Your task to perform on an android device: add a contact in the contacts app Image 0: 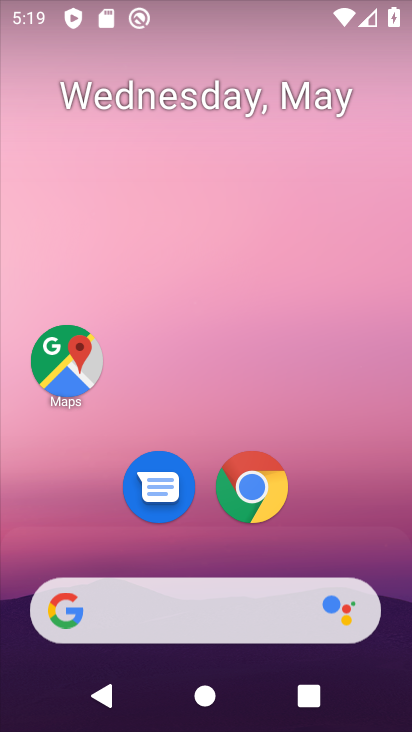
Step 0: drag from (218, 575) to (375, 25)
Your task to perform on an android device: add a contact in the contacts app Image 1: 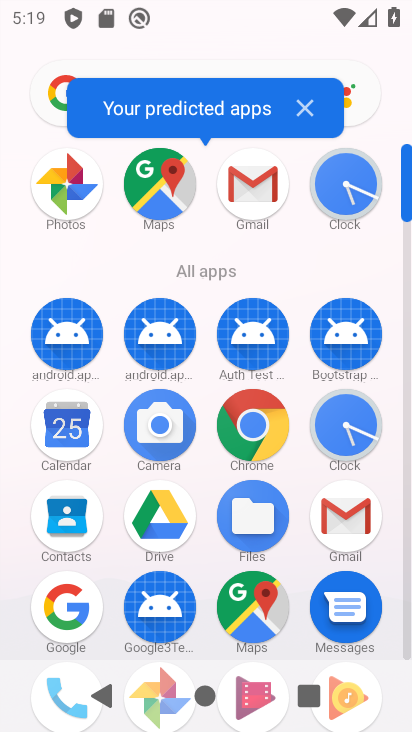
Step 1: drag from (292, 621) to (249, 239)
Your task to perform on an android device: add a contact in the contacts app Image 2: 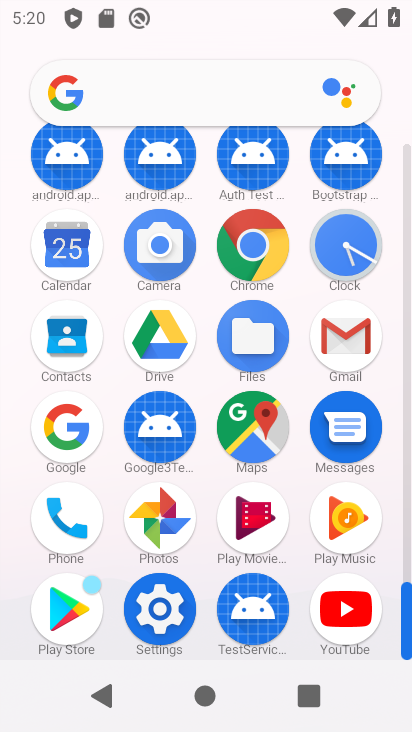
Step 2: click (75, 368)
Your task to perform on an android device: add a contact in the contacts app Image 3: 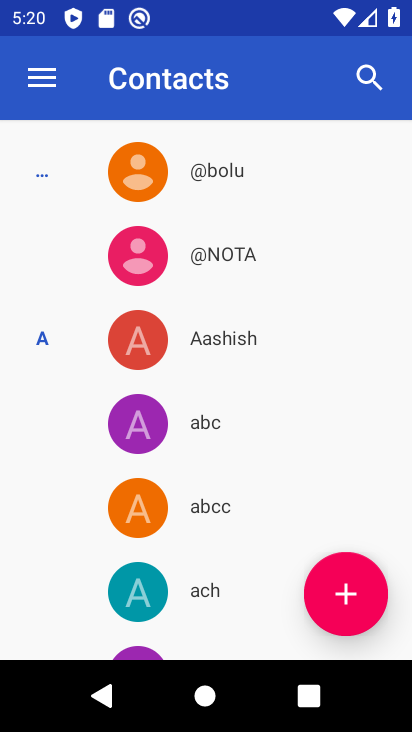
Step 3: click (334, 610)
Your task to perform on an android device: add a contact in the contacts app Image 4: 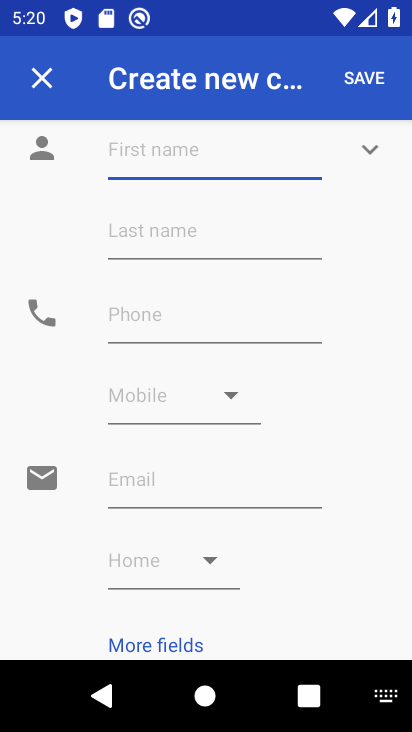
Step 4: type "Avacado"
Your task to perform on an android device: add a contact in the contacts app Image 5: 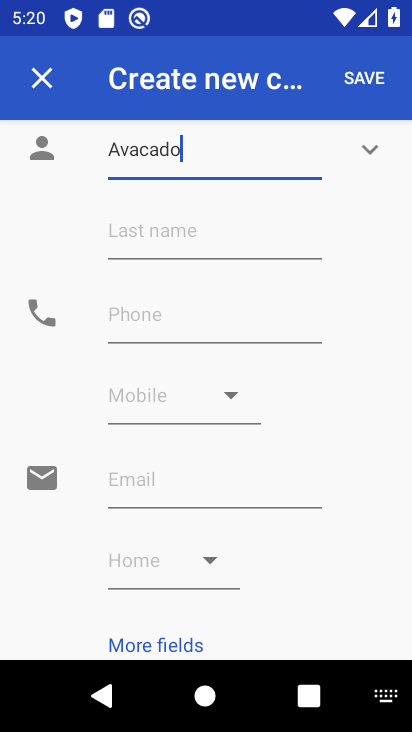
Step 5: click (149, 329)
Your task to perform on an android device: add a contact in the contacts app Image 6: 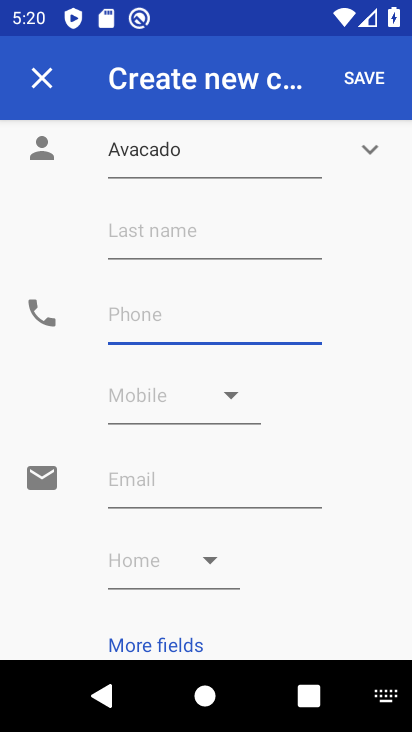
Step 6: type "7878878778"
Your task to perform on an android device: add a contact in the contacts app Image 7: 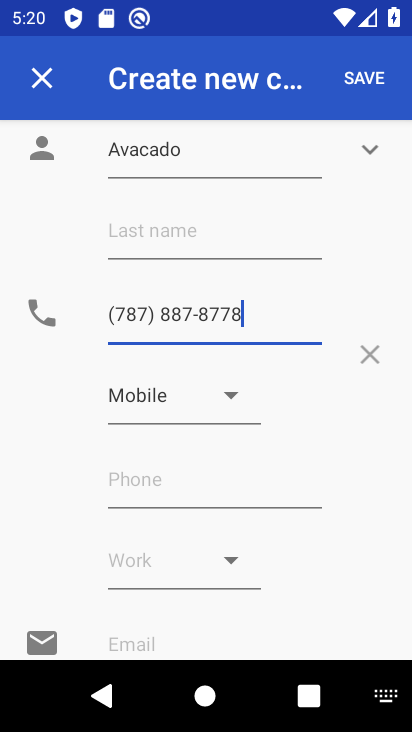
Step 7: click (358, 76)
Your task to perform on an android device: add a contact in the contacts app Image 8: 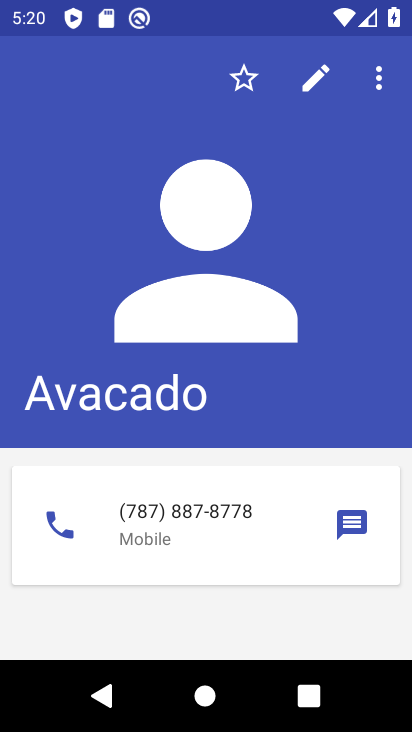
Step 8: task complete